Your task to perform on an android device: Go to accessibility settings Image 0: 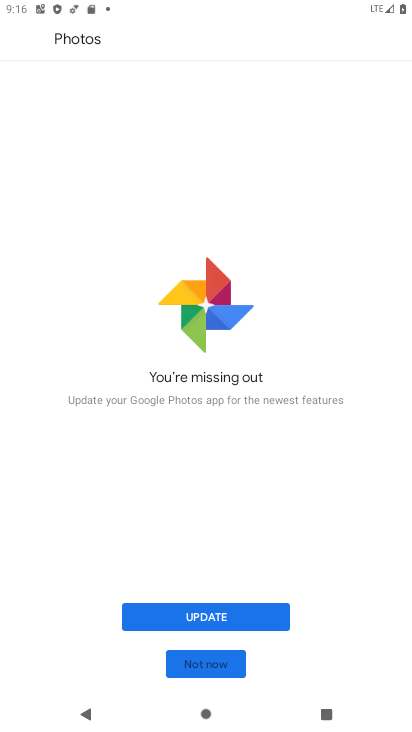
Step 0: press home button
Your task to perform on an android device: Go to accessibility settings Image 1: 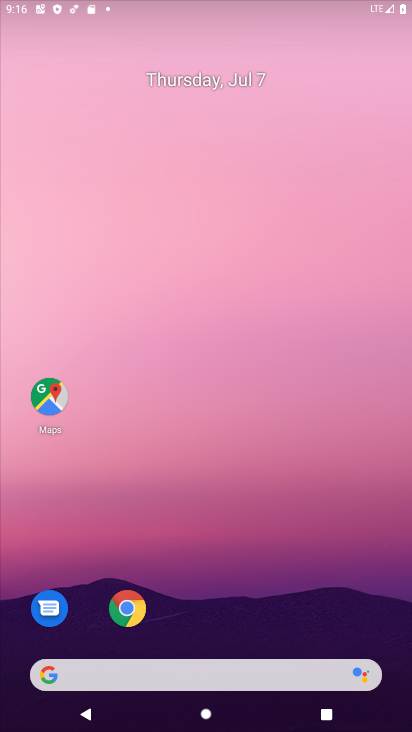
Step 1: drag from (214, 643) to (194, 112)
Your task to perform on an android device: Go to accessibility settings Image 2: 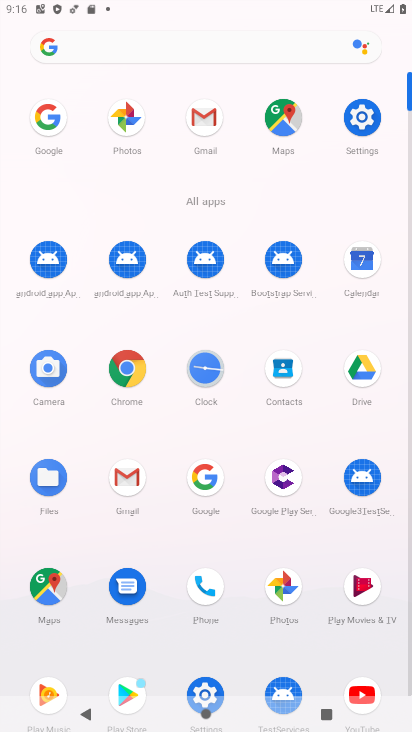
Step 2: click (361, 116)
Your task to perform on an android device: Go to accessibility settings Image 3: 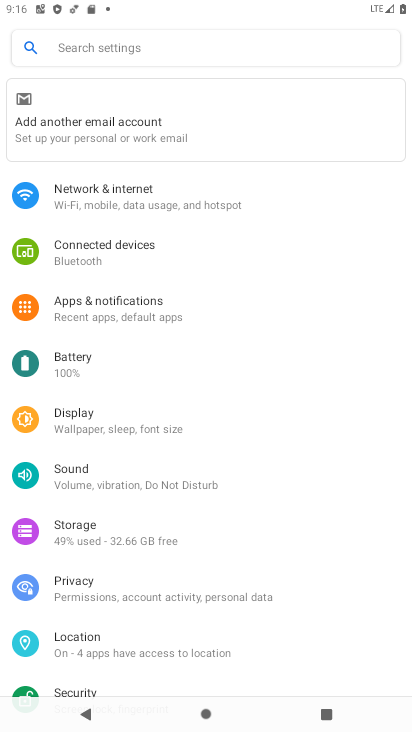
Step 3: drag from (154, 617) to (136, 58)
Your task to perform on an android device: Go to accessibility settings Image 4: 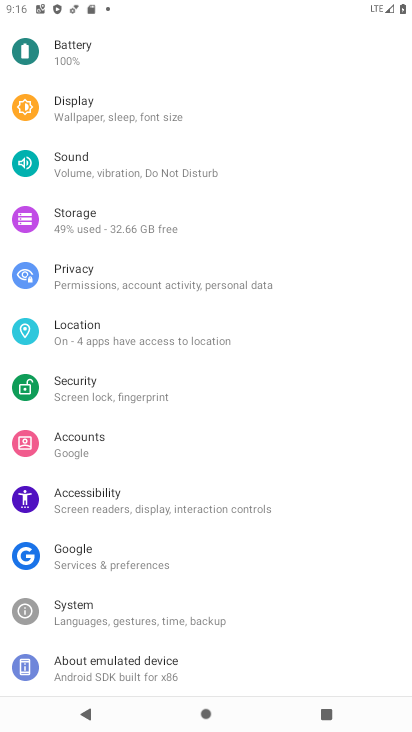
Step 4: click (115, 498)
Your task to perform on an android device: Go to accessibility settings Image 5: 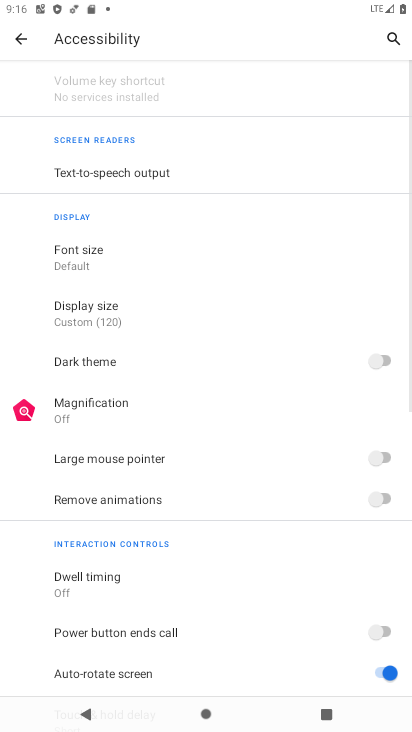
Step 5: task complete